Your task to perform on an android device: Open calendar and show me the first week of next month Image 0: 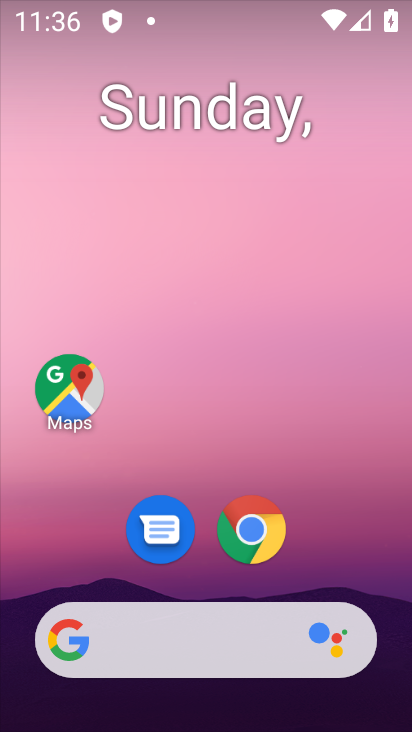
Step 0: drag from (361, 519) to (336, 163)
Your task to perform on an android device: Open calendar and show me the first week of next month Image 1: 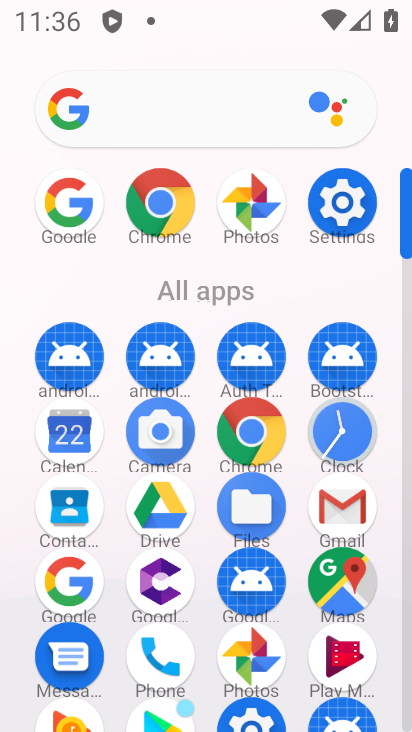
Step 1: click (63, 452)
Your task to perform on an android device: Open calendar and show me the first week of next month Image 2: 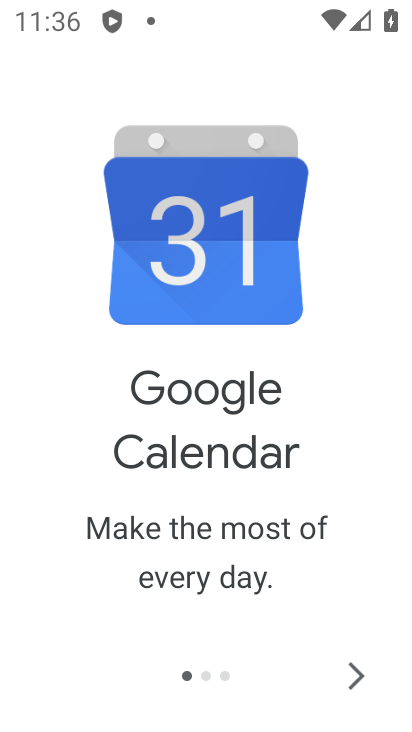
Step 2: click (345, 685)
Your task to perform on an android device: Open calendar and show me the first week of next month Image 3: 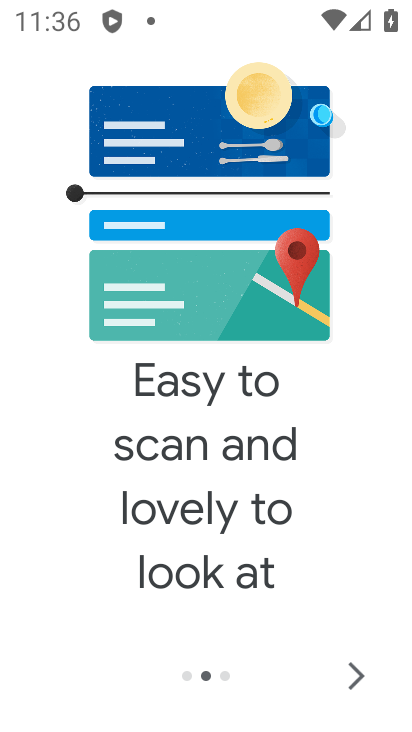
Step 3: click (345, 685)
Your task to perform on an android device: Open calendar and show me the first week of next month Image 4: 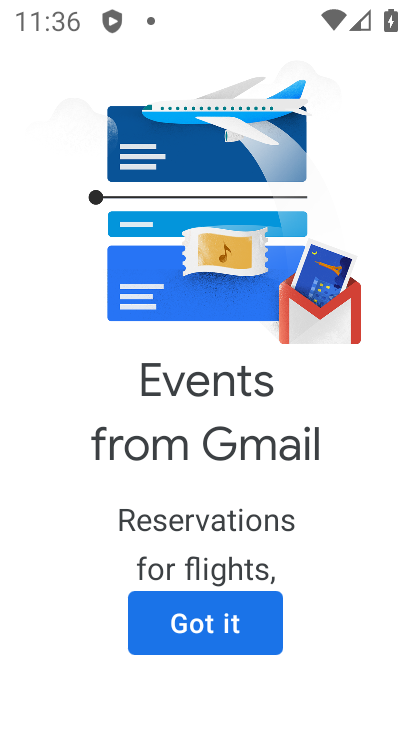
Step 4: click (345, 685)
Your task to perform on an android device: Open calendar and show me the first week of next month Image 5: 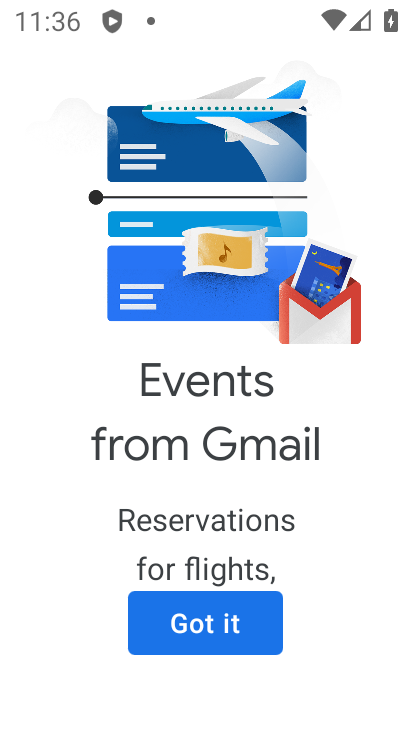
Step 5: click (194, 624)
Your task to perform on an android device: Open calendar and show me the first week of next month Image 6: 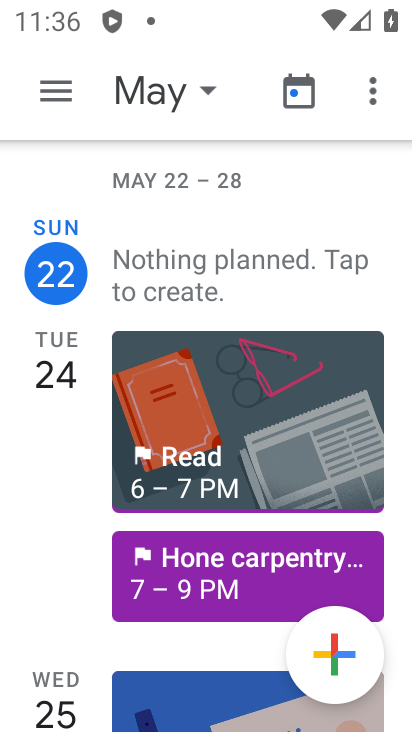
Step 6: click (214, 89)
Your task to perform on an android device: Open calendar and show me the first week of next month Image 7: 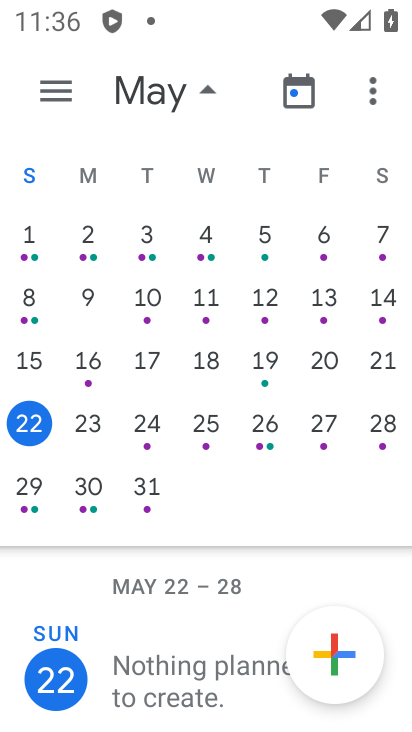
Step 7: drag from (380, 203) to (15, 207)
Your task to perform on an android device: Open calendar and show me the first week of next month Image 8: 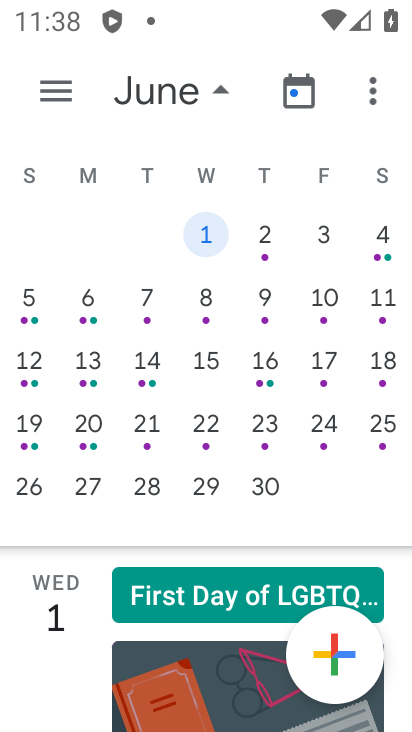
Step 8: click (260, 247)
Your task to perform on an android device: Open calendar and show me the first week of next month Image 9: 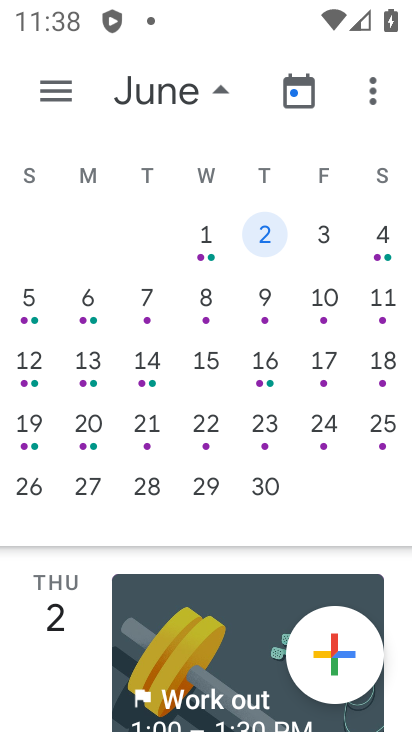
Step 9: task complete